Your task to perform on an android device: turn notification dots off Image 0: 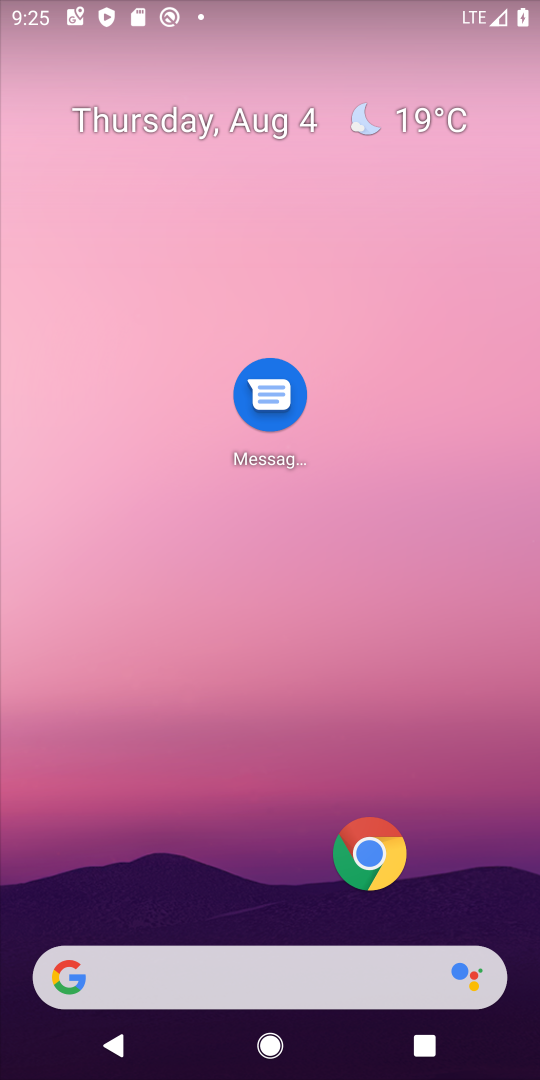
Step 0: drag from (277, 884) to (237, 439)
Your task to perform on an android device: turn notification dots off Image 1: 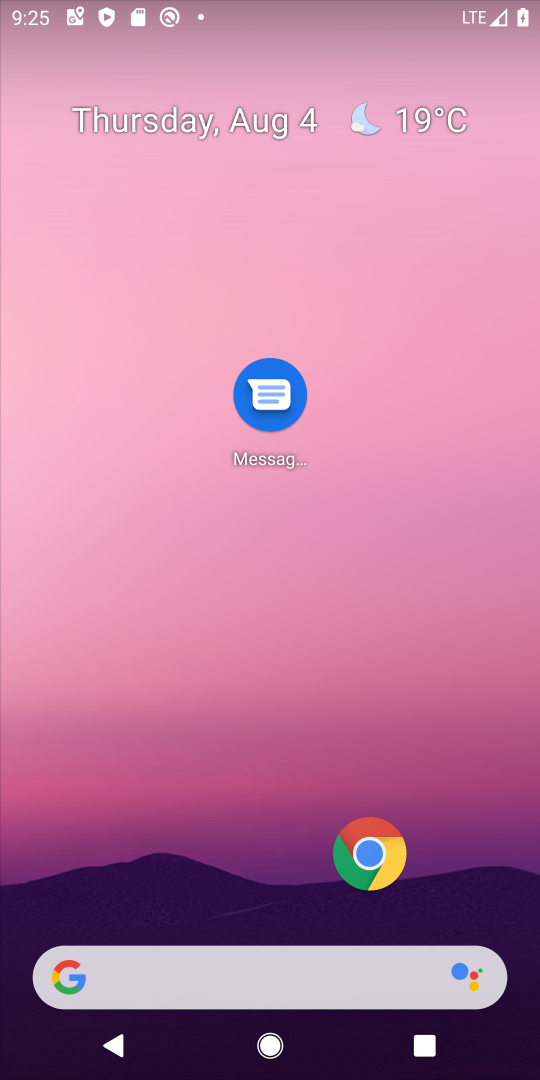
Step 1: drag from (224, 929) to (208, 414)
Your task to perform on an android device: turn notification dots off Image 2: 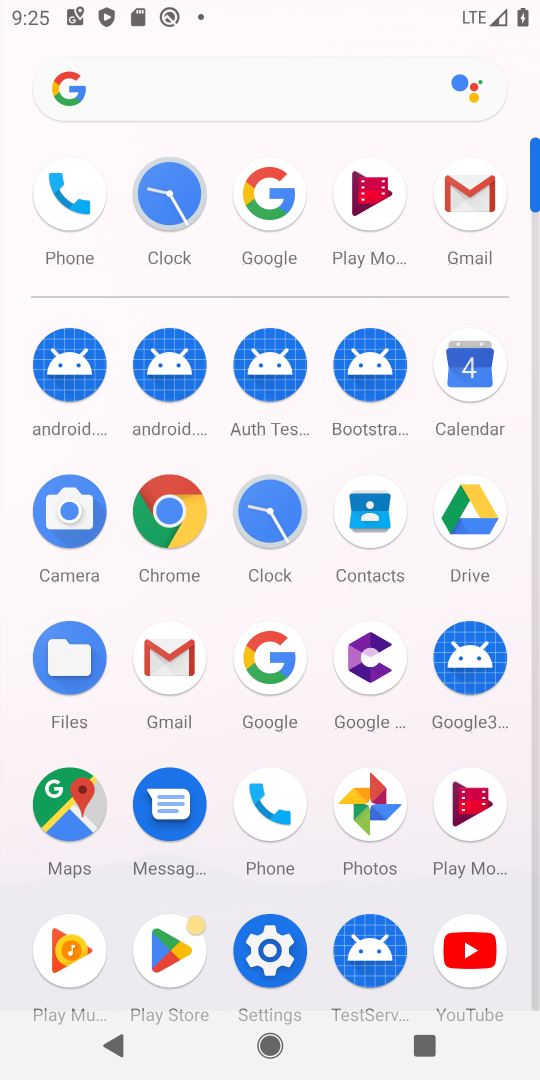
Step 2: click (281, 959)
Your task to perform on an android device: turn notification dots off Image 3: 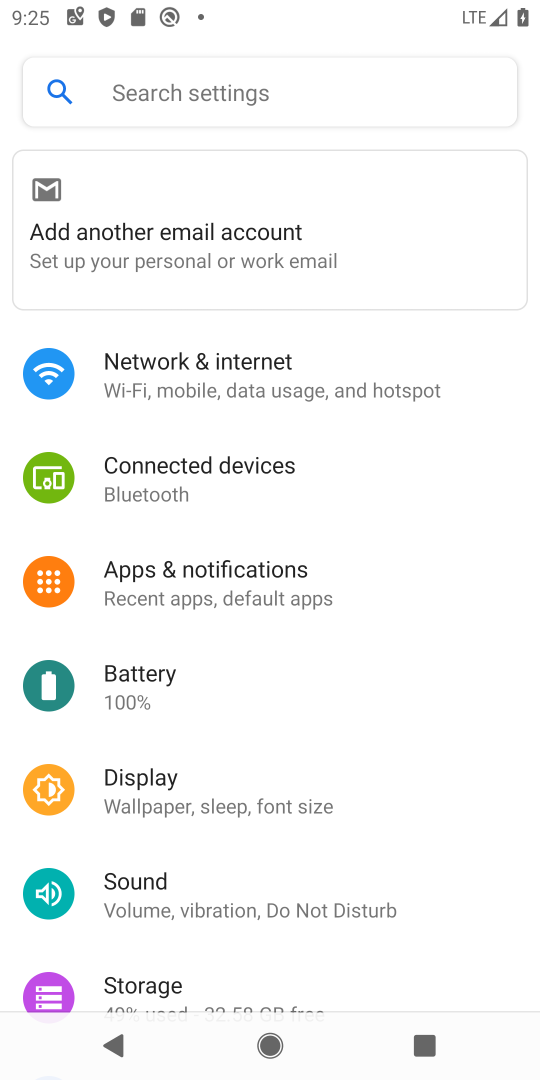
Step 3: click (202, 573)
Your task to perform on an android device: turn notification dots off Image 4: 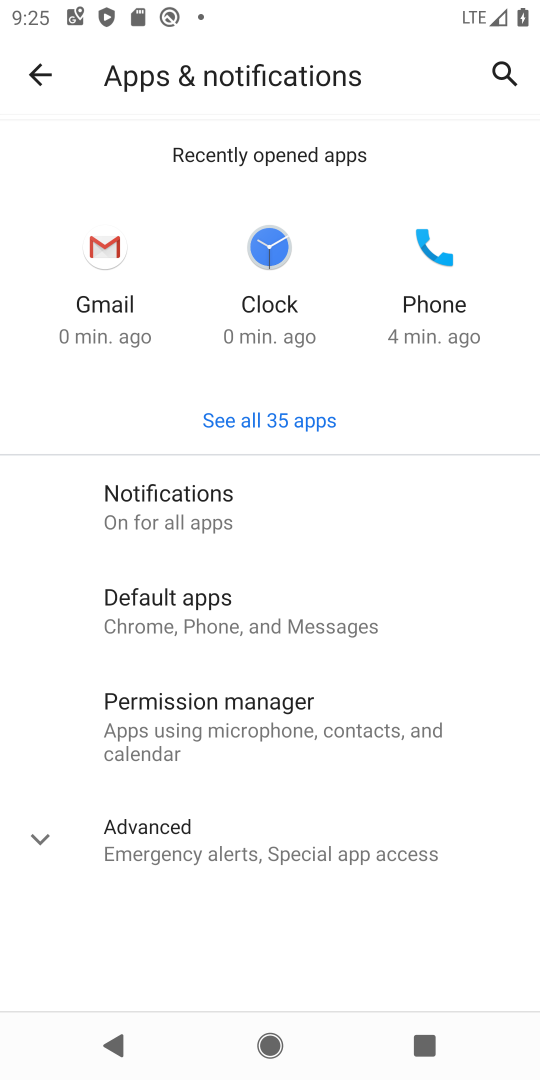
Step 4: click (212, 495)
Your task to perform on an android device: turn notification dots off Image 5: 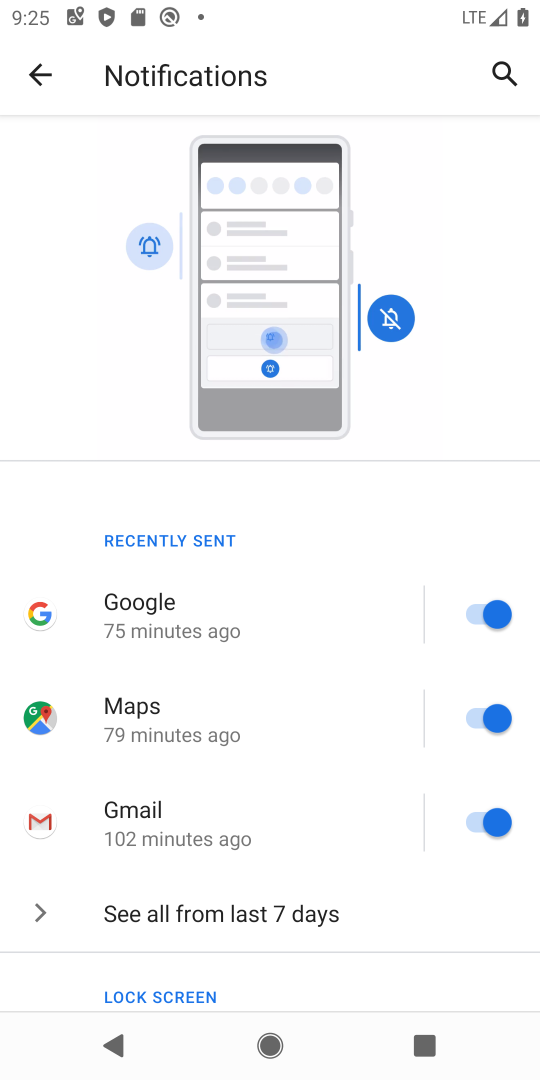
Step 5: drag from (289, 897) to (234, 463)
Your task to perform on an android device: turn notification dots off Image 6: 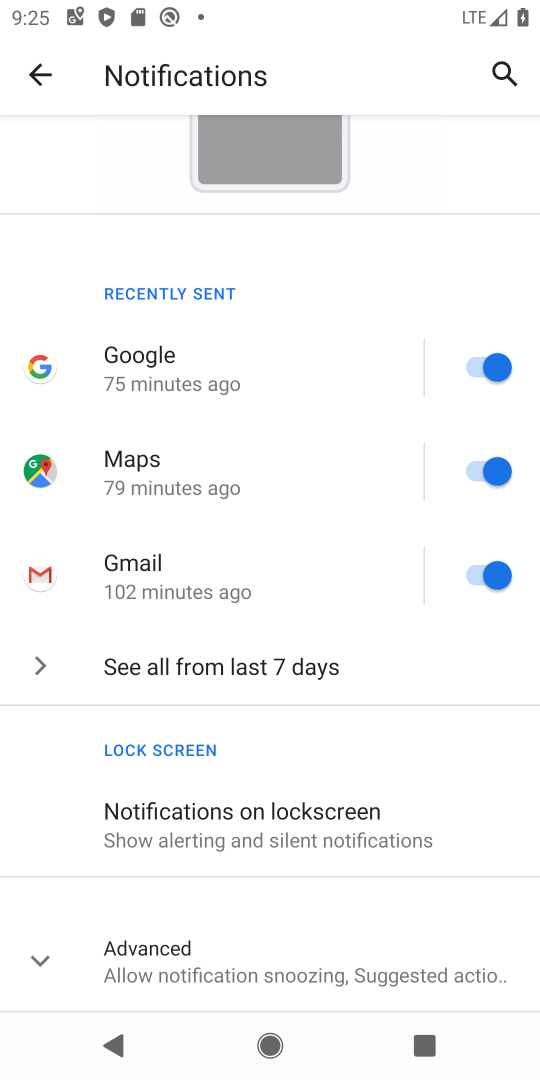
Step 6: click (214, 947)
Your task to perform on an android device: turn notification dots off Image 7: 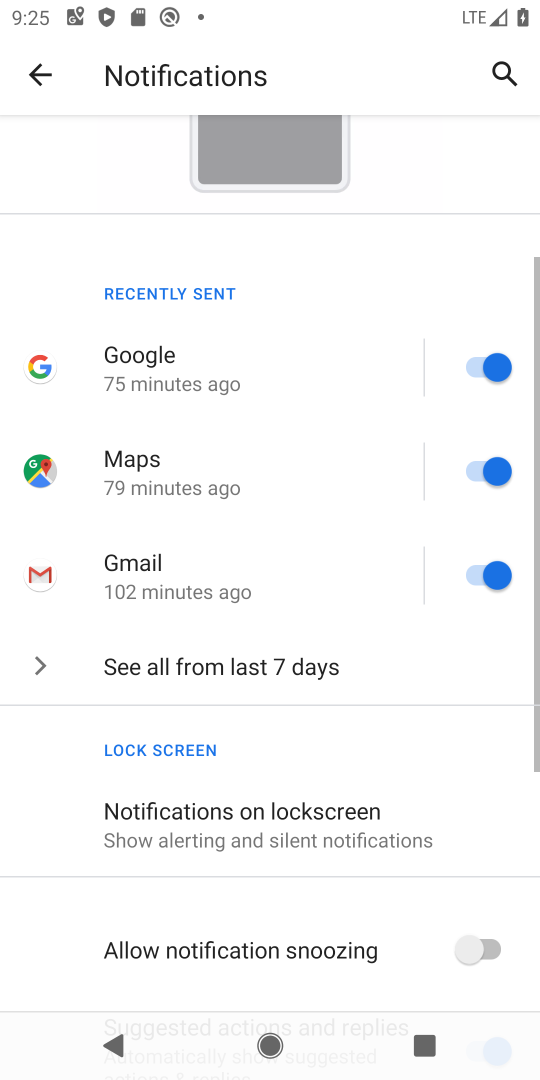
Step 7: drag from (331, 860) to (340, 331)
Your task to perform on an android device: turn notification dots off Image 8: 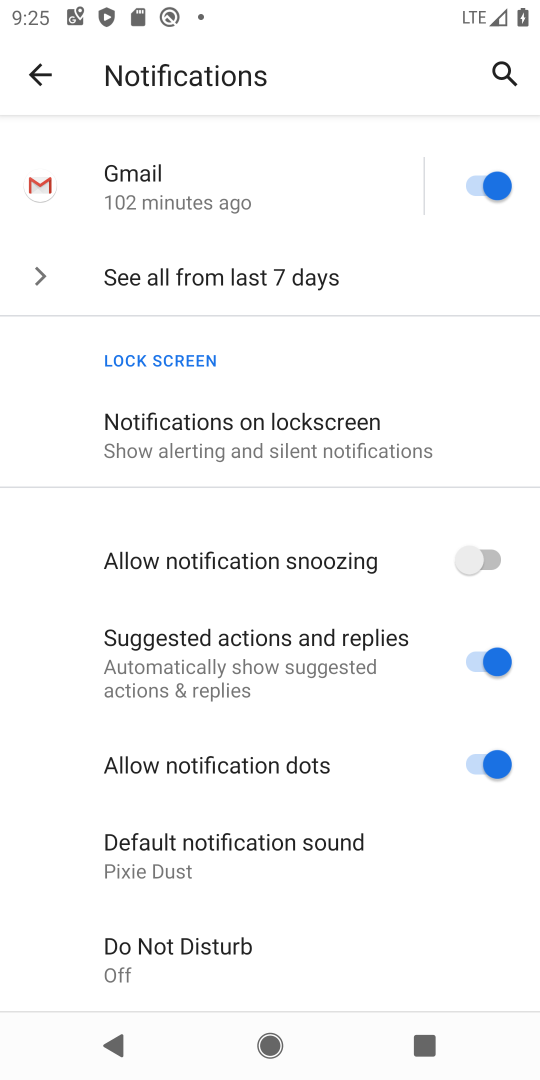
Step 8: click (467, 762)
Your task to perform on an android device: turn notification dots off Image 9: 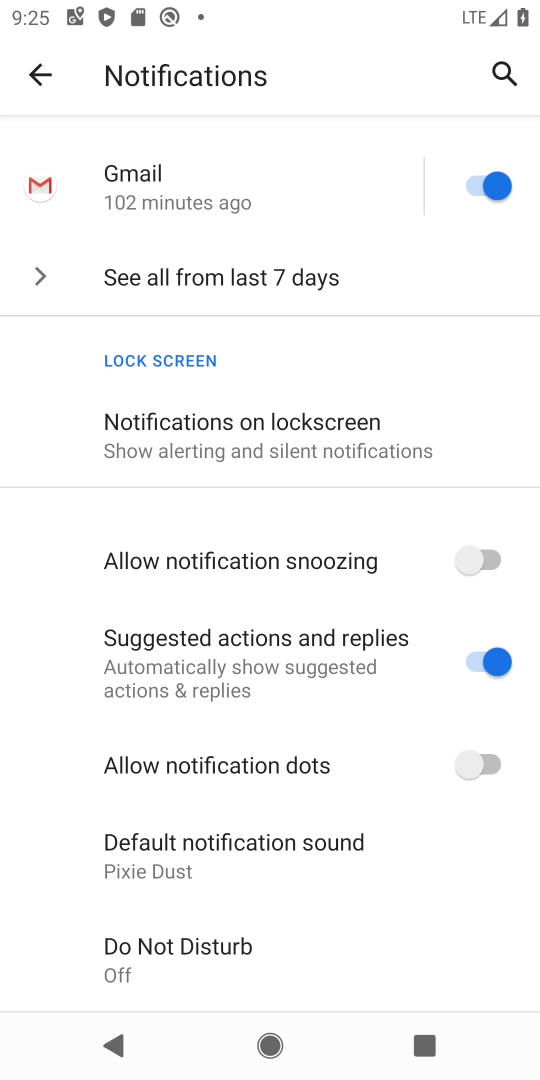
Step 9: task complete